Your task to perform on an android device: Is it going to rain today? Image 0: 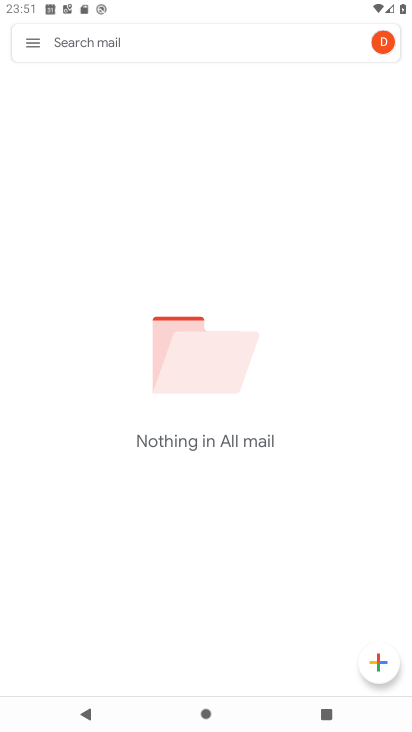
Step 0: press home button
Your task to perform on an android device: Is it going to rain today? Image 1: 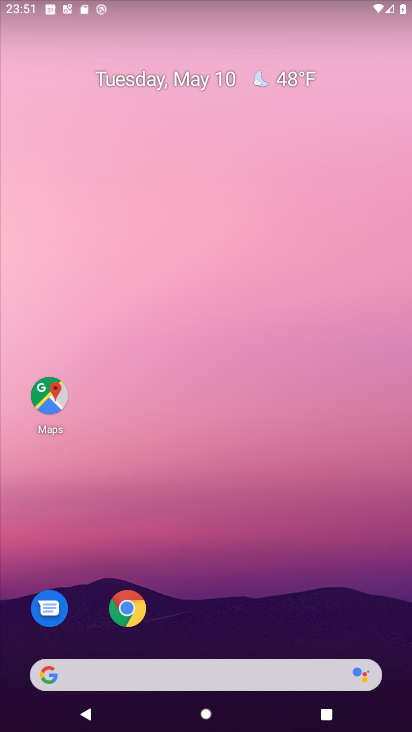
Step 1: click (132, 615)
Your task to perform on an android device: Is it going to rain today? Image 2: 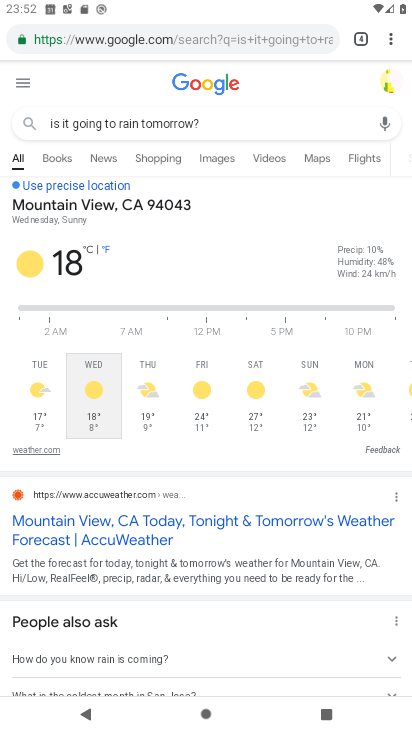
Step 2: click (194, 125)
Your task to perform on an android device: Is it going to rain today? Image 3: 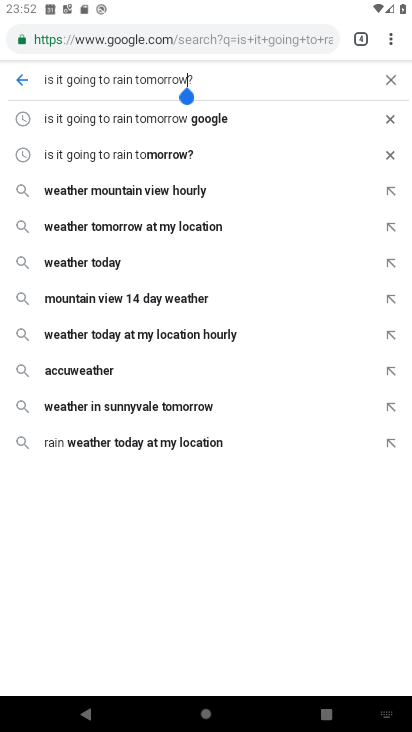
Step 3: click (170, 80)
Your task to perform on an android device: Is it going to rain today? Image 4: 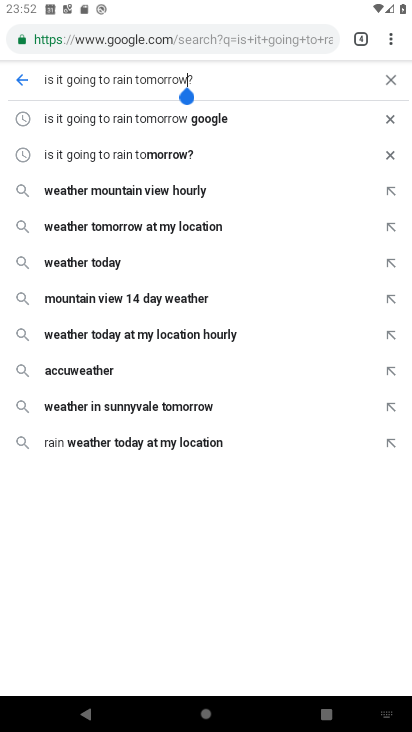
Step 4: click (170, 80)
Your task to perform on an android device: Is it going to rain today? Image 5: 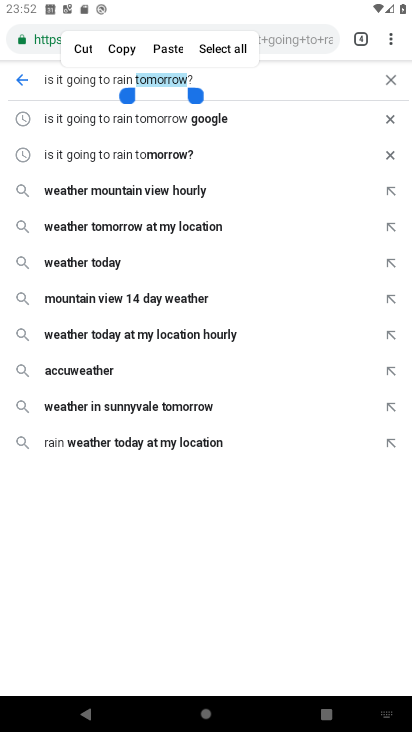
Step 5: click (170, 80)
Your task to perform on an android device: Is it going to rain today? Image 6: 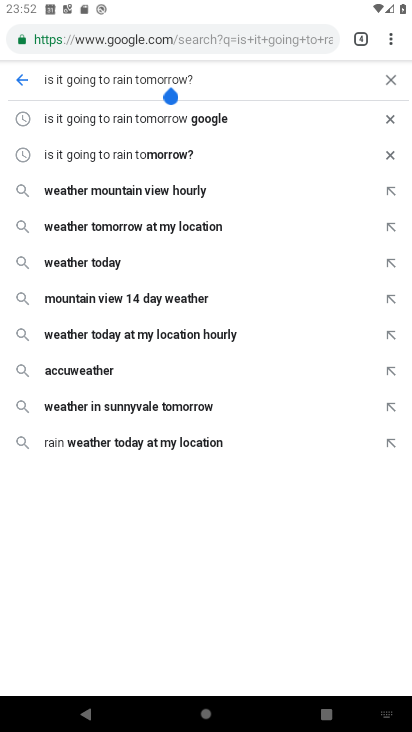
Step 6: click (144, 76)
Your task to perform on an android device: Is it going to rain today? Image 7: 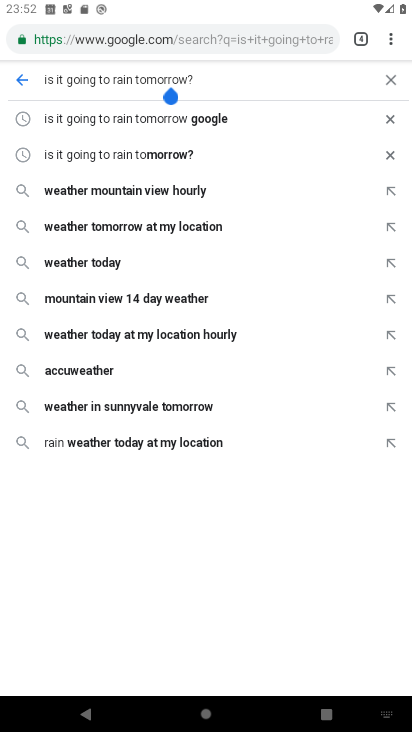
Step 7: click (144, 76)
Your task to perform on an android device: Is it going to rain today? Image 8: 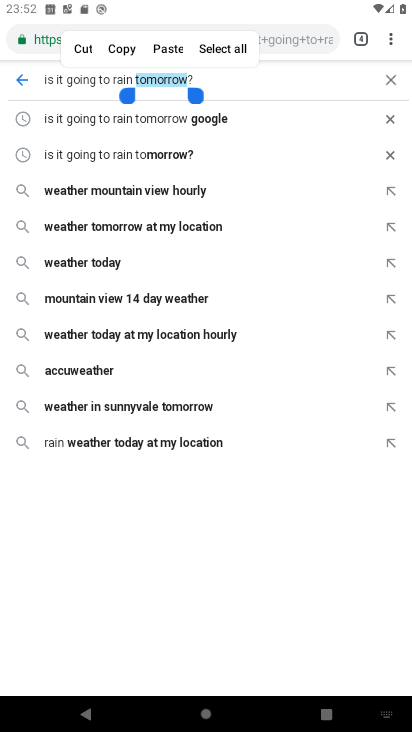
Step 8: type "today"
Your task to perform on an android device: Is it going to rain today? Image 9: 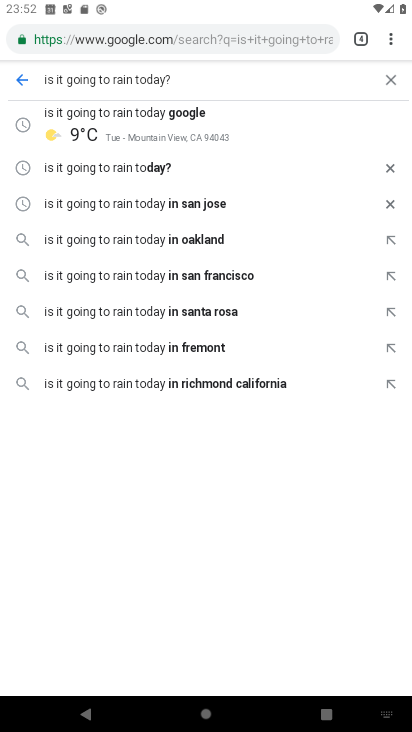
Step 9: click (137, 165)
Your task to perform on an android device: Is it going to rain today? Image 10: 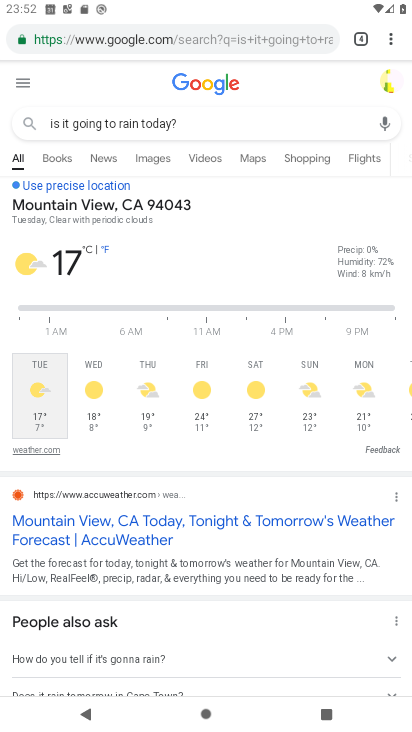
Step 10: task complete